Your task to perform on an android device: Is it going to rain today? Image 0: 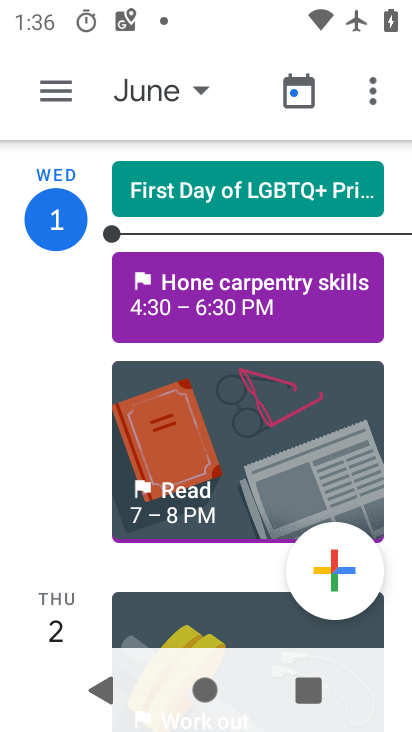
Step 0: press home button
Your task to perform on an android device: Is it going to rain today? Image 1: 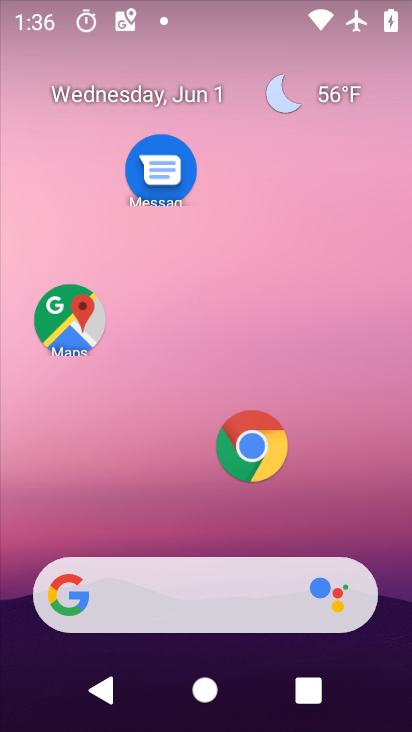
Step 1: drag from (195, 518) to (255, 145)
Your task to perform on an android device: Is it going to rain today? Image 2: 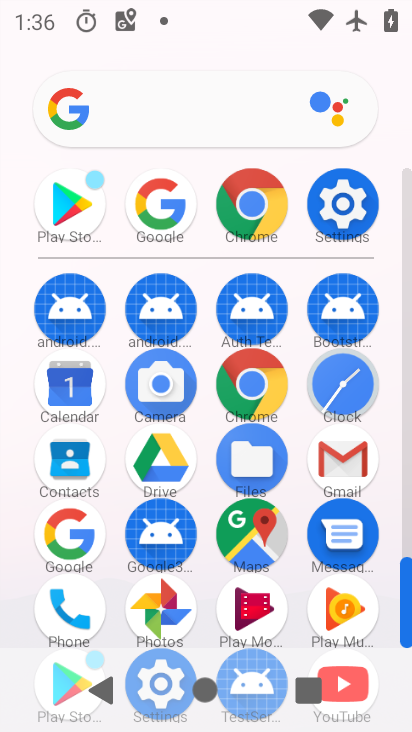
Step 2: drag from (208, 260) to (208, 65)
Your task to perform on an android device: Is it going to rain today? Image 3: 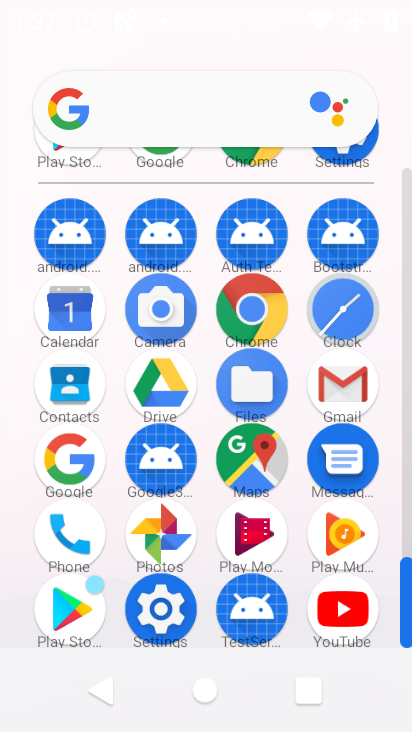
Step 3: click (81, 474)
Your task to perform on an android device: Is it going to rain today? Image 4: 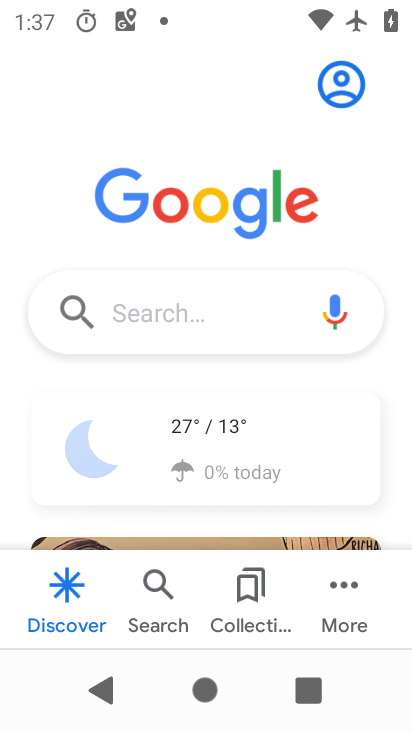
Step 4: click (182, 429)
Your task to perform on an android device: Is it going to rain today? Image 5: 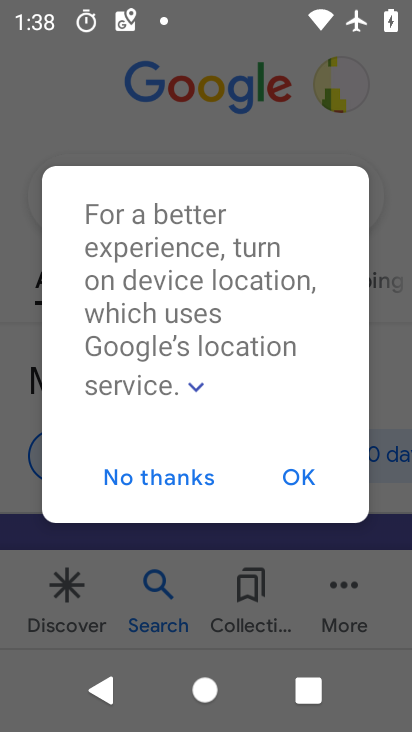
Step 5: click (290, 487)
Your task to perform on an android device: Is it going to rain today? Image 6: 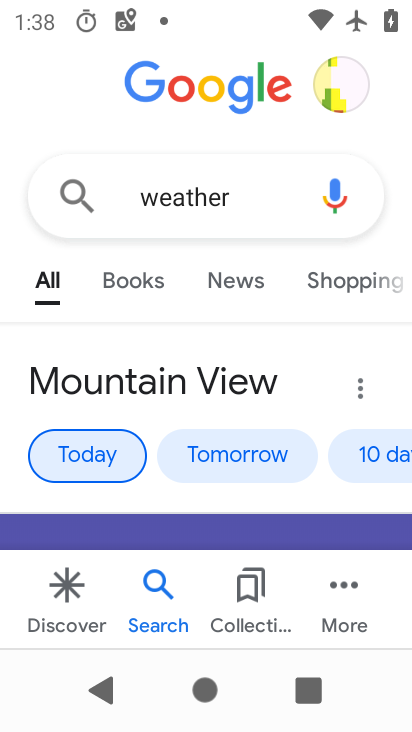
Step 6: task complete